Your task to perform on an android device: What's the weather going to be this weekend? Image 0: 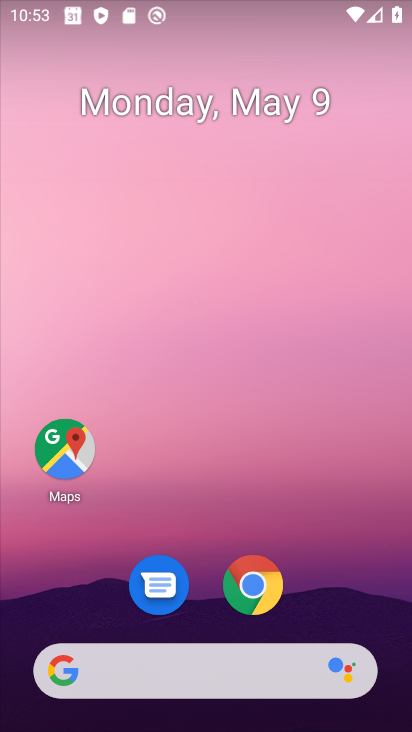
Step 0: drag from (98, 283) to (405, 283)
Your task to perform on an android device: What's the weather going to be this weekend? Image 1: 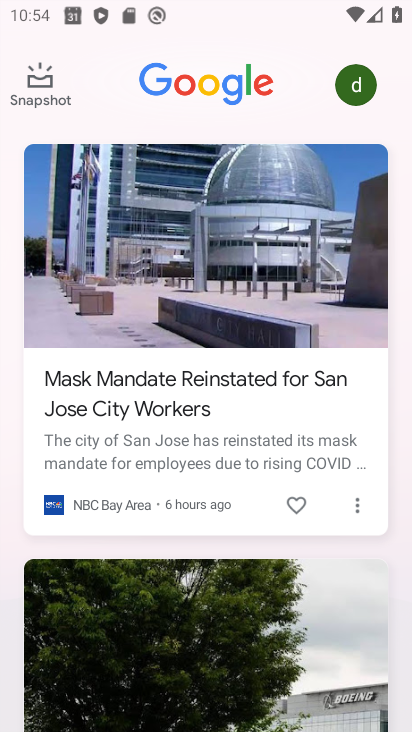
Step 1: drag from (354, 316) to (8, 324)
Your task to perform on an android device: What's the weather going to be this weekend? Image 2: 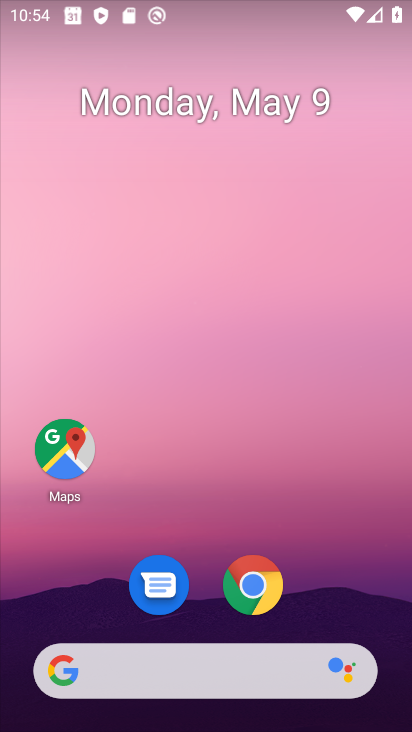
Step 2: drag from (318, 309) to (0, 340)
Your task to perform on an android device: What's the weather going to be this weekend? Image 3: 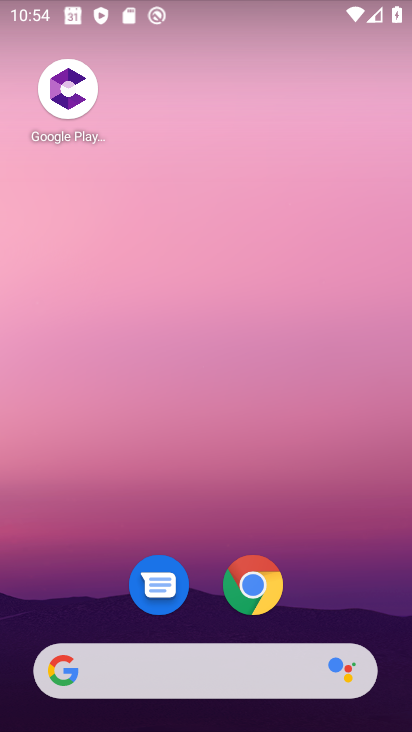
Step 3: drag from (75, 286) to (409, 383)
Your task to perform on an android device: What's the weather going to be this weekend? Image 4: 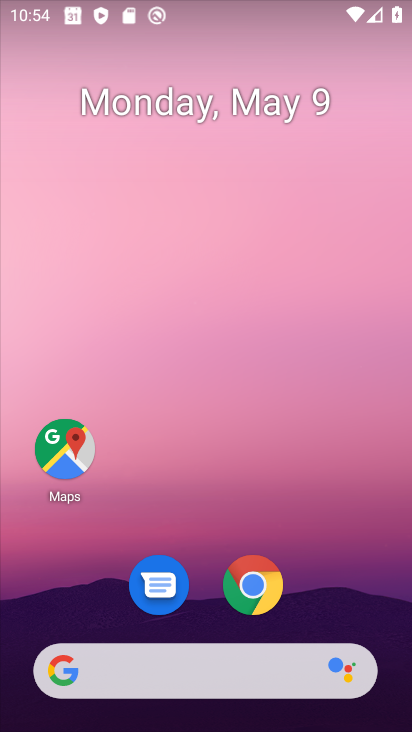
Step 4: click (165, 679)
Your task to perform on an android device: What's the weather going to be this weekend? Image 5: 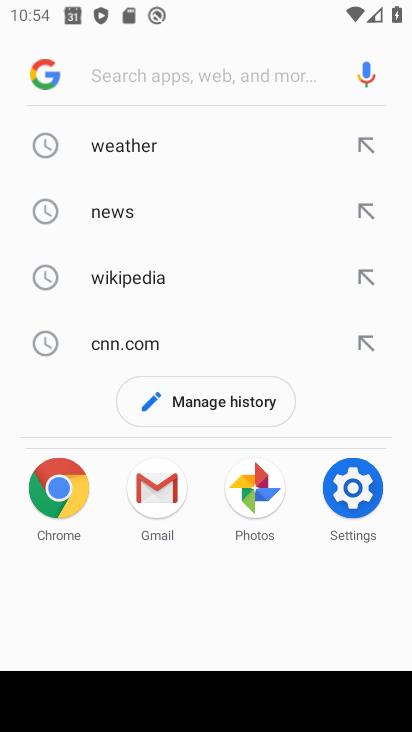
Step 5: click (46, 139)
Your task to perform on an android device: What's the weather going to be this weekend? Image 6: 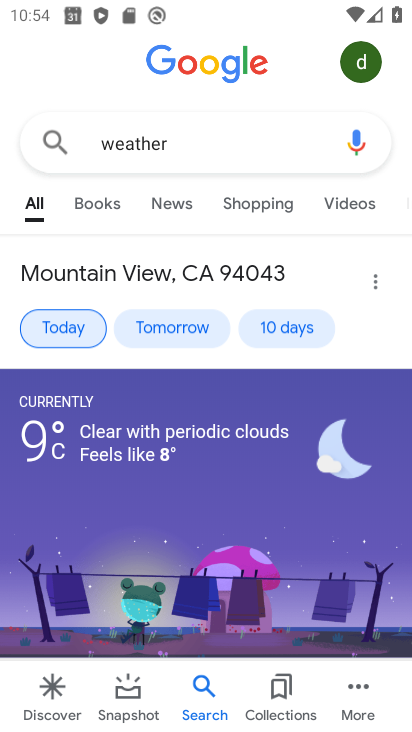
Step 6: click (279, 319)
Your task to perform on an android device: What's the weather going to be this weekend? Image 7: 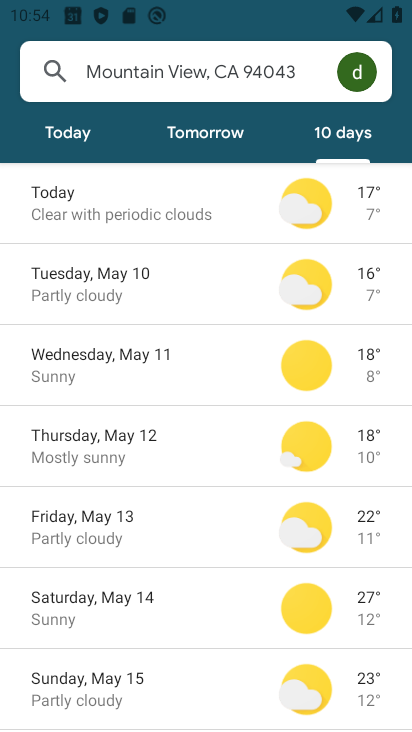
Step 7: click (118, 590)
Your task to perform on an android device: What's the weather going to be this weekend? Image 8: 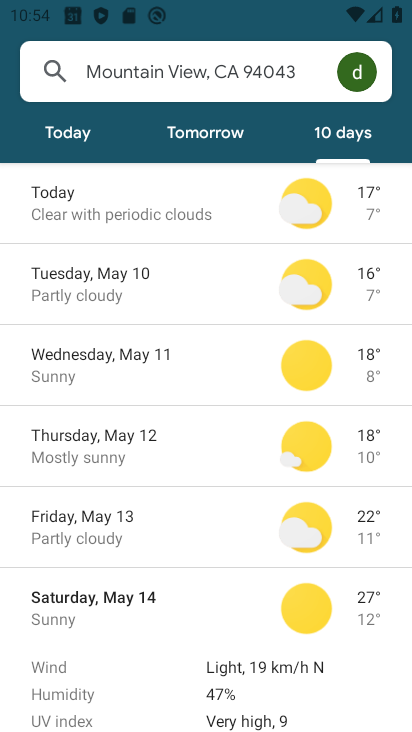
Step 8: task complete